Your task to perform on an android device: Open calendar and show me the third week of next month Image 0: 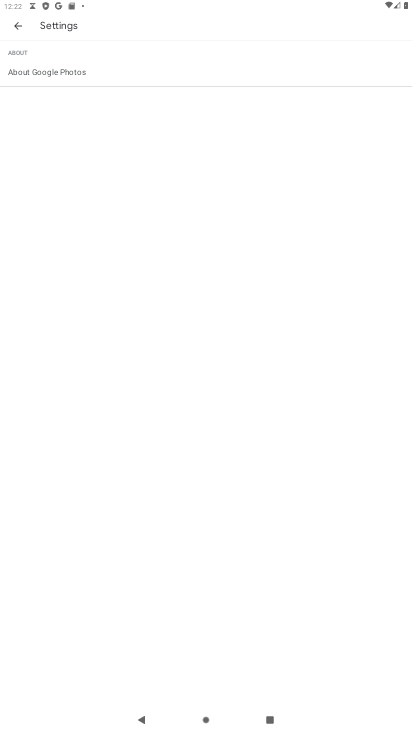
Step 0: press home button
Your task to perform on an android device: Open calendar and show me the third week of next month Image 1: 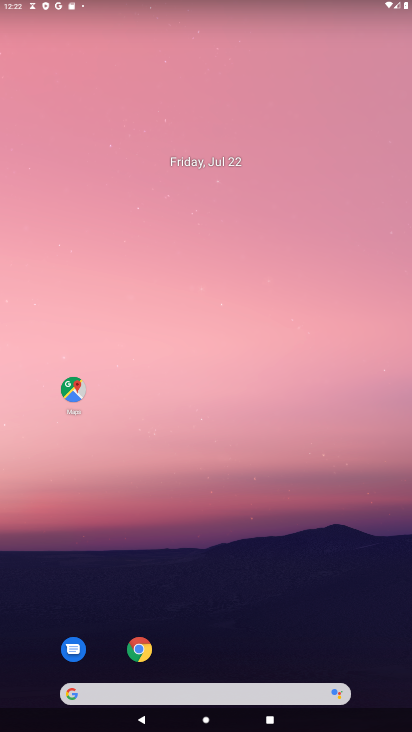
Step 1: drag from (335, 649) to (218, 171)
Your task to perform on an android device: Open calendar and show me the third week of next month Image 2: 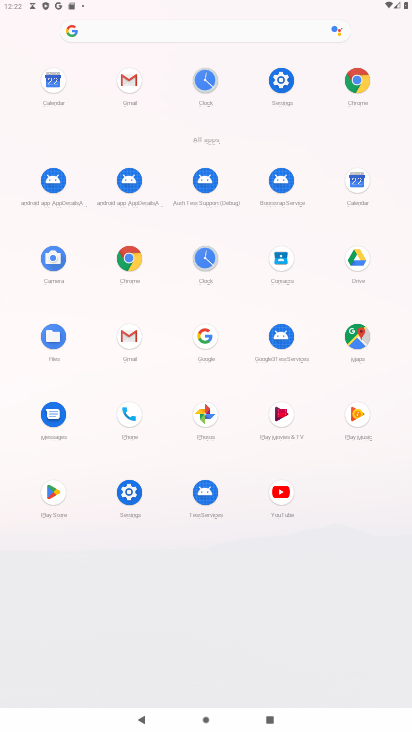
Step 2: click (361, 178)
Your task to perform on an android device: Open calendar and show me the third week of next month Image 3: 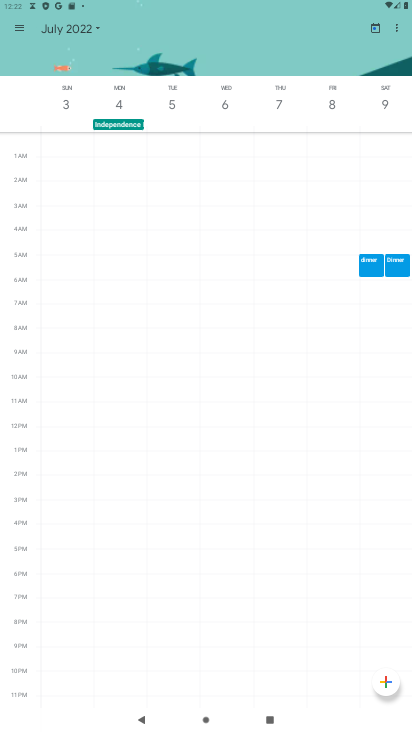
Step 3: click (23, 34)
Your task to perform on an android device: Open calendar and show me the third week of next month Image 4: 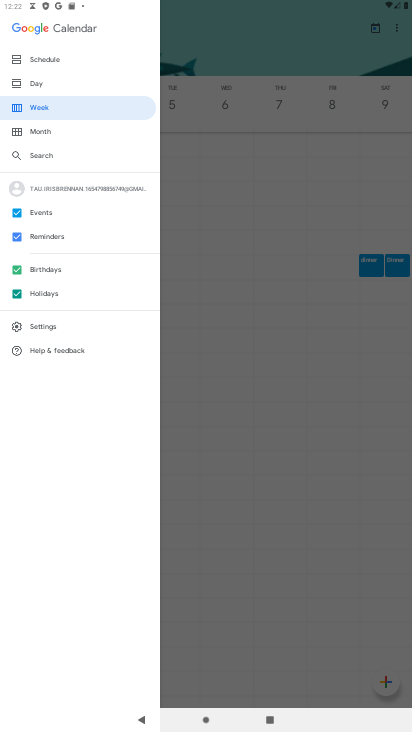
Step 4: click (267, 115)
Your task to perform on an android device: Open calendar and show me the third week of next month Image 5: 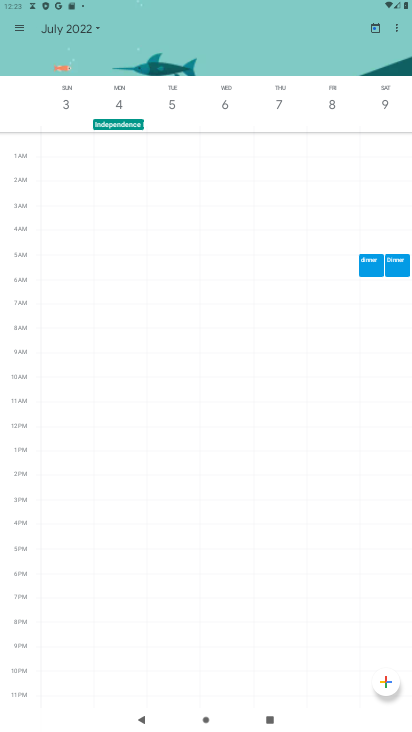
Step 5: click (85, 33)
Your task to perform on an android device: Open calendar and show me the third week of next month Image 6: 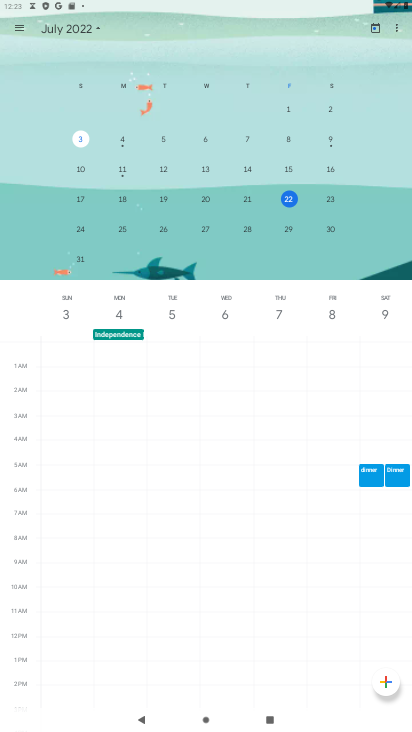
Step 6: drag from (344, 207) to (17, 164)
Your task to perform on an android device: Open calendar and show me the third week of next month Image 7: 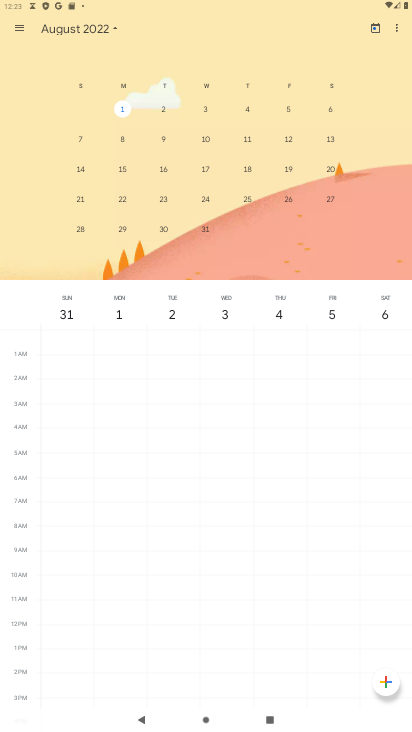
Step 7: click (124, 165)
Your task to perform on an android device: Open calendar and show me the third week of next month Image 8: 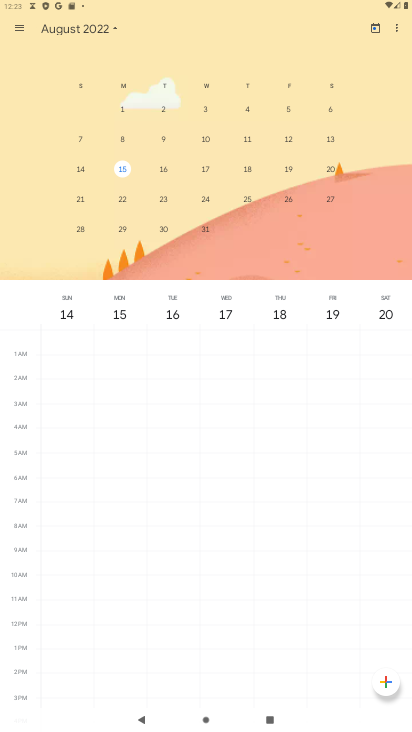
Step 8: task complete